Your task to perform on an android device: What is the news today? Image 0: 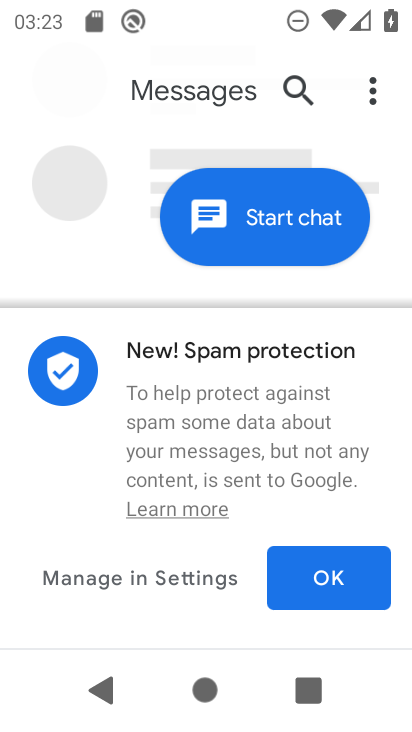
Step 0: press home button
Your task to perform on an android device: What is the news today? Image 1: 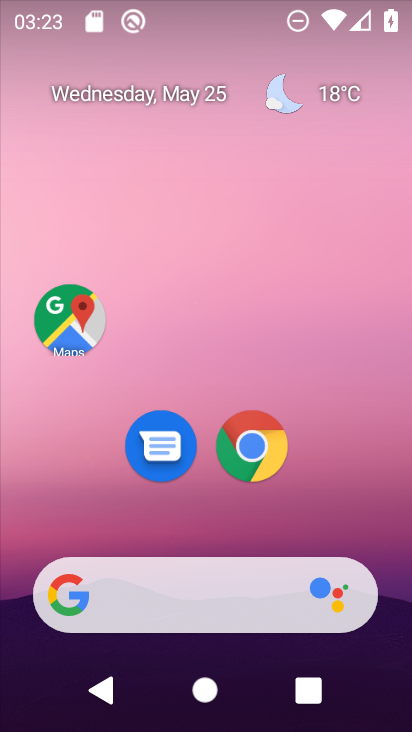
Step 1: task complete